Your task to perform on an android device: add a contact Image 0: 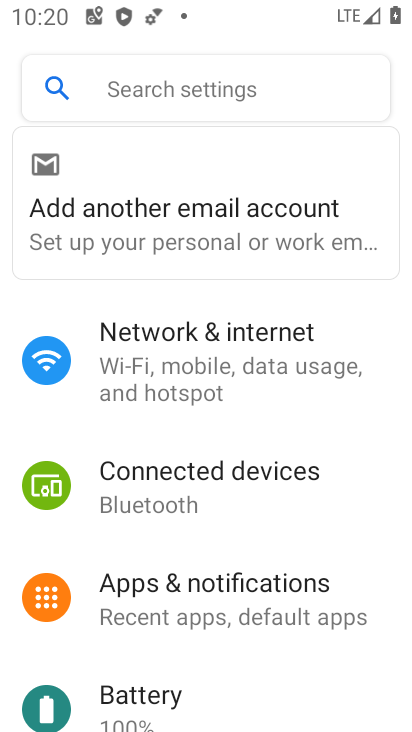
Step 0: press home button
Your task to perform on an android device: add a contact Image 1: 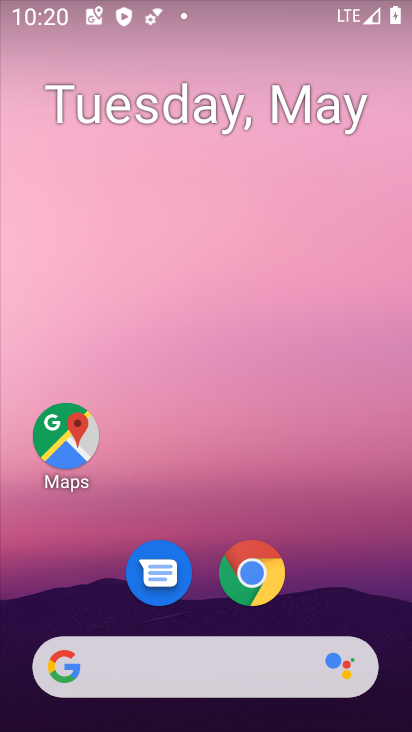
Step 1: drag from (131, 729) to (62, 74)
Your task to perform on an android device: add a contact Image 2: 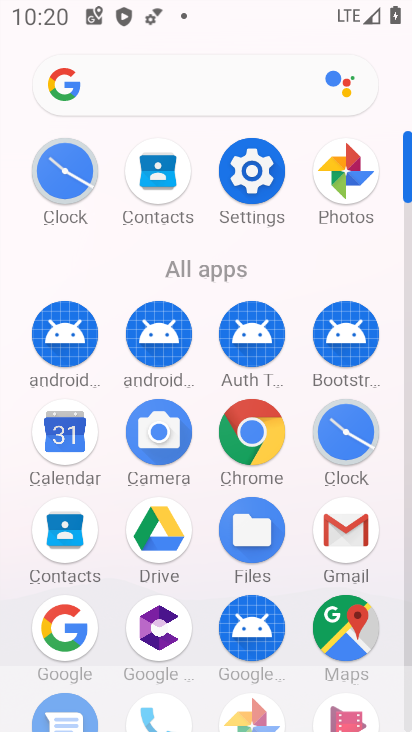
Step 2: click (55, 538)
Your task to perform on an android device: add a contact Image 3: 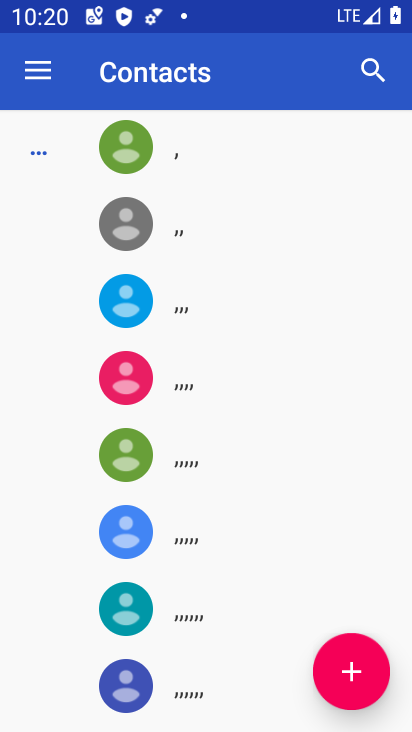
Step 3: click (341, 680)
Your task to perform on an android device: add a contact Image 4: 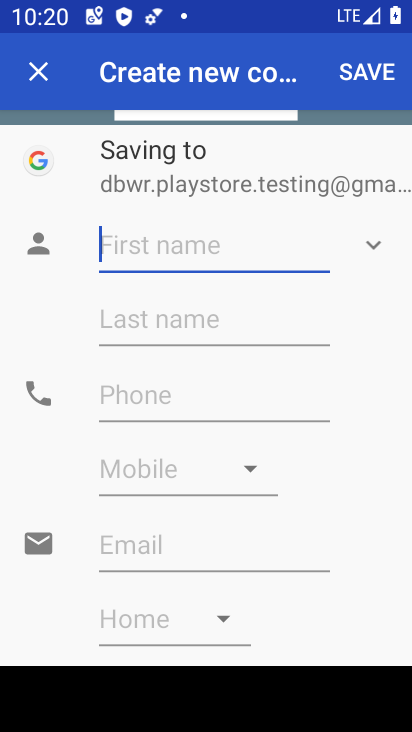
Step 4: type "aahkjwhskh"
Your task to perform on an android device: add a contact Image 5: 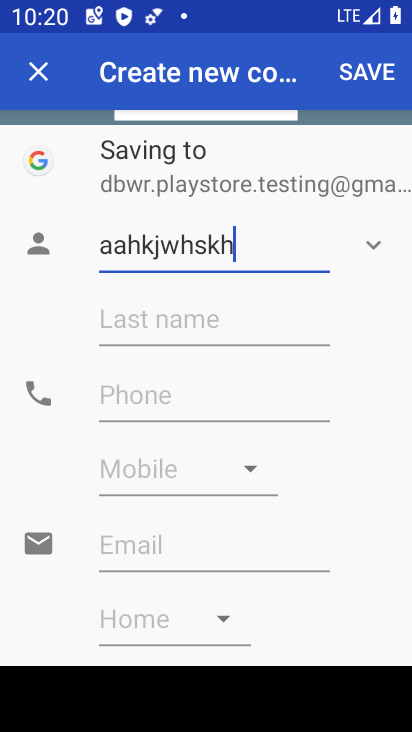
Step 5: click (187, 414)
Your task to perform on an android device: add a contact Image 6: 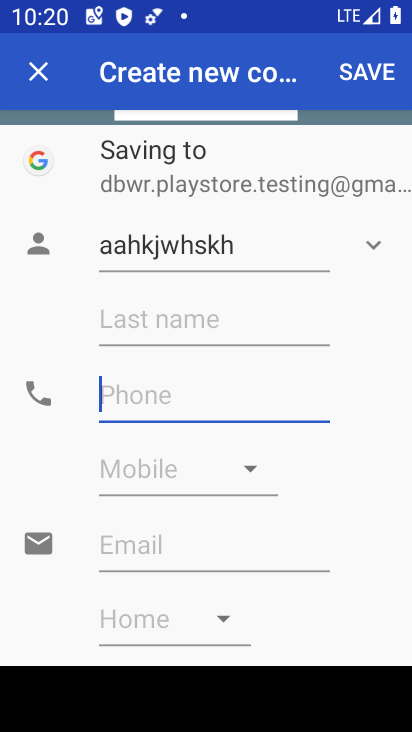
Step 6: click (191, 404)
Your task to perform on an android device: add a contact Image 7: 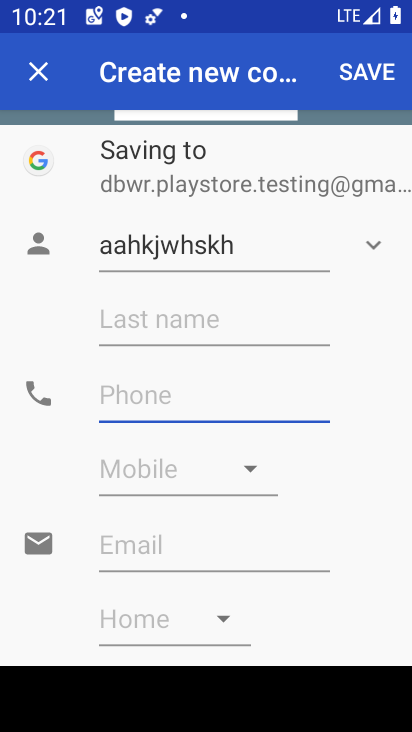
Step 7: type "8736458917"
Your task to perform on an android device: add a contact Image 8: 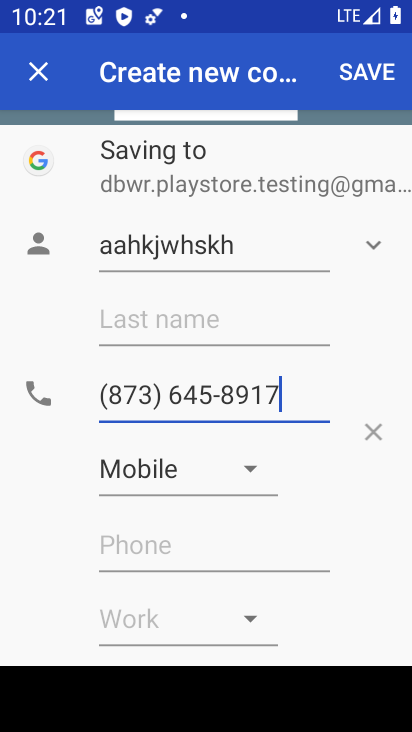
Step 8: click (355, 71)
Your task to perform on an android device: add a contact Image 9: 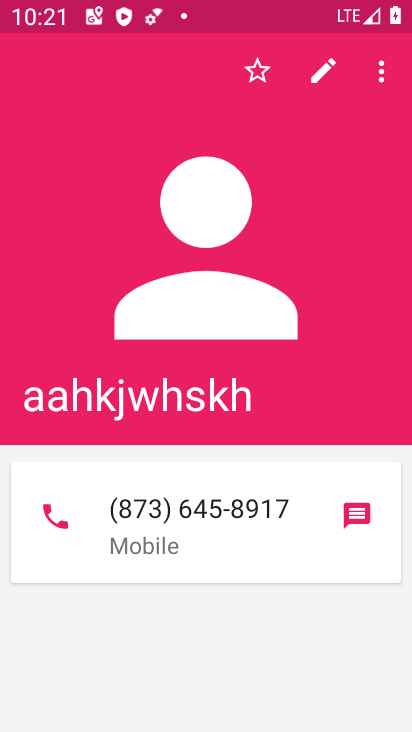
Step 9: task complete